Your task to perform on an android device: Open the Play Movies app and select the watchlist tab. Image 0: 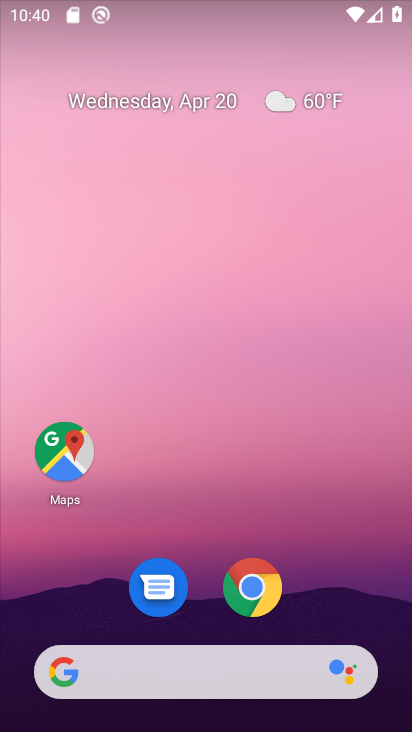
Step 0: drag from (211, 627) to (238, 97)
Your task to perform on an android device: Open the Play Movies app and select the watchlist tab. Image 1: 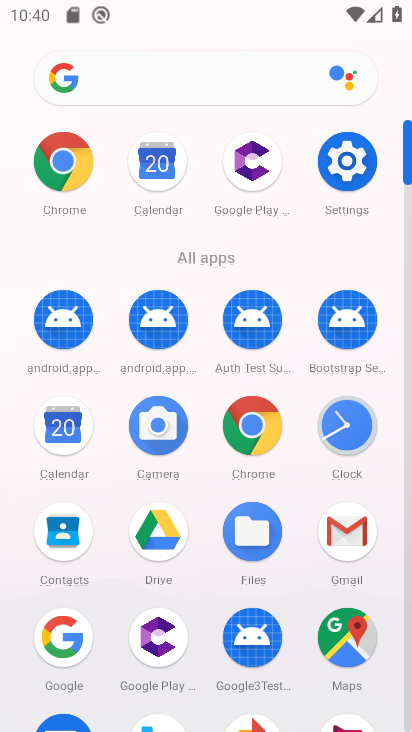
Step 1: drag from (202, 594) to (248, 135)
Your task to perform on an android device: Open the Play Movies app and select the watchlist tab. Image 2: 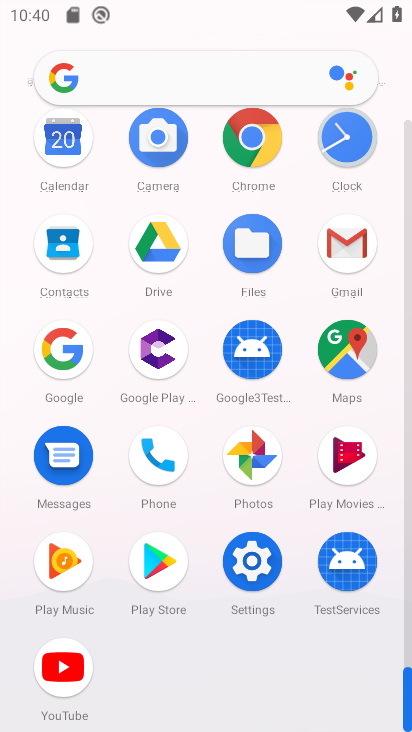
Step 2: click (344, 447)
Your task to perform on an android device: Open the Play Movies app and select the watchlist tab. Image 3: 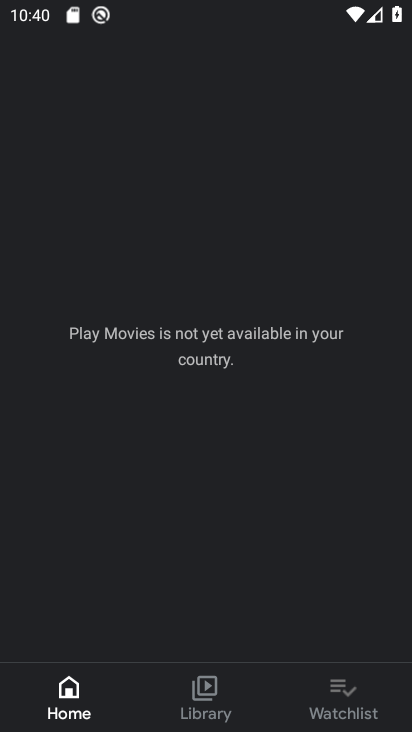
Step 3: click (342, 686)
Your task to perform on an android device: Open the Play Movies app and select the watchlist tab. Image 4: 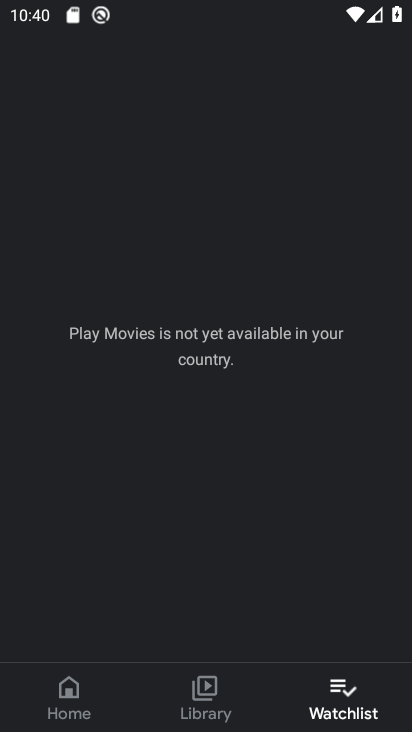
Step 4: task complete